Your task to perform on an android device: Open network settings Image 0: 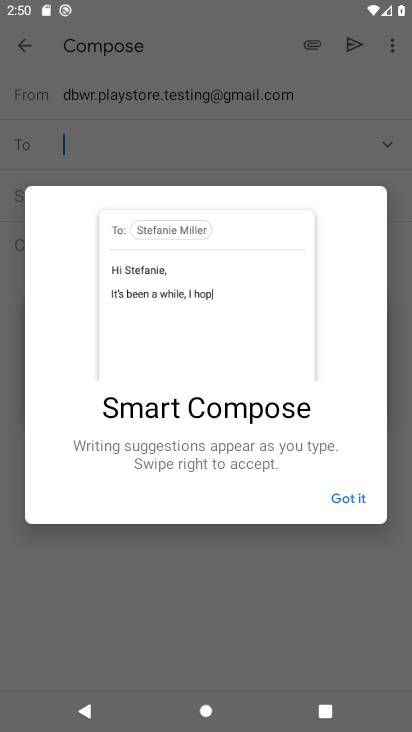
Step 0: press home button
Your task to perform on an android device: Open network settings Image 1: 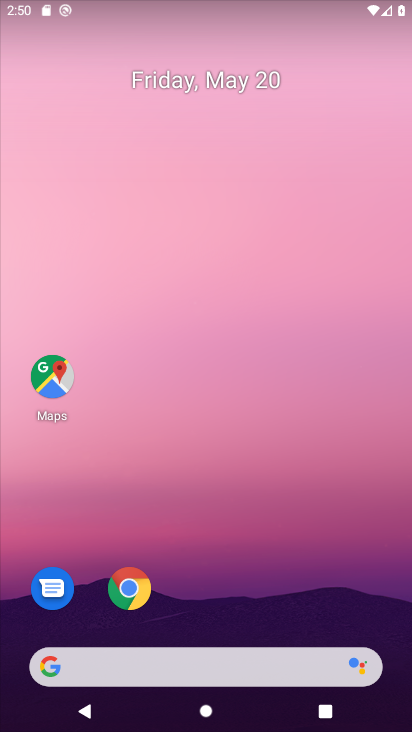
Step 1: drag from (292, 480) to (310, 152)
Your task to perform on an android device: Open network settings Image 2: 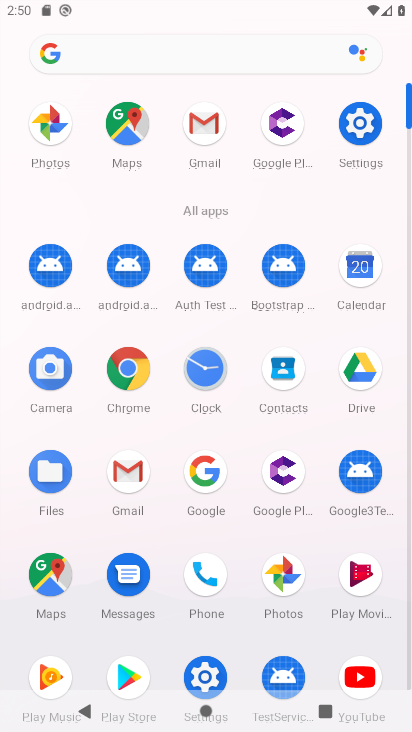
Step 2: click (363, 129)
Your task to perform on an android device: Open network settings Image 3: 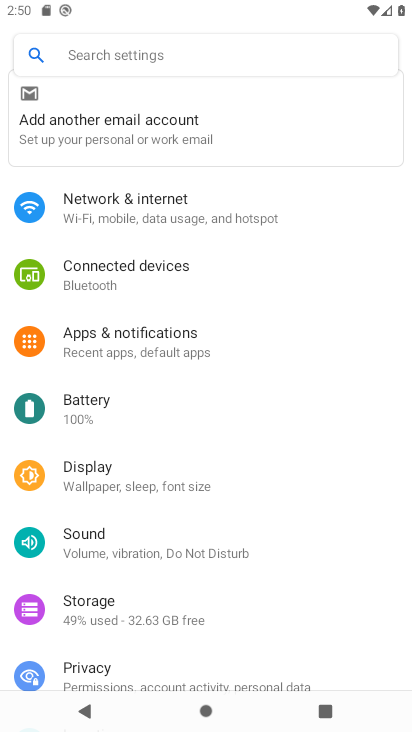
Step 3: click (179, 206)
Your task to perform on an android device: Open network settings Image 4: 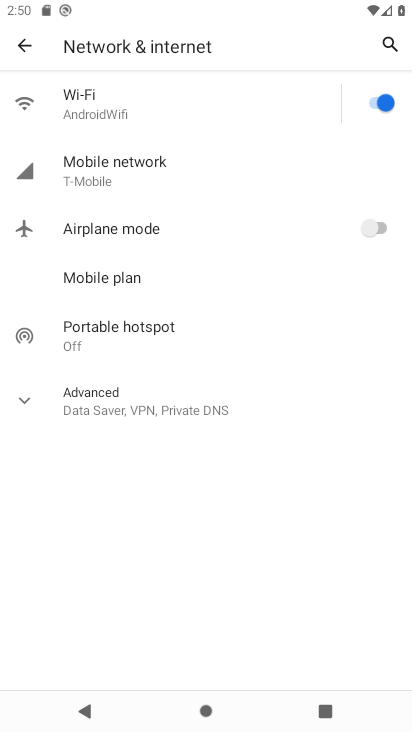
Step 4: task complete